Your task to perform on an android device: check android version Image 0: 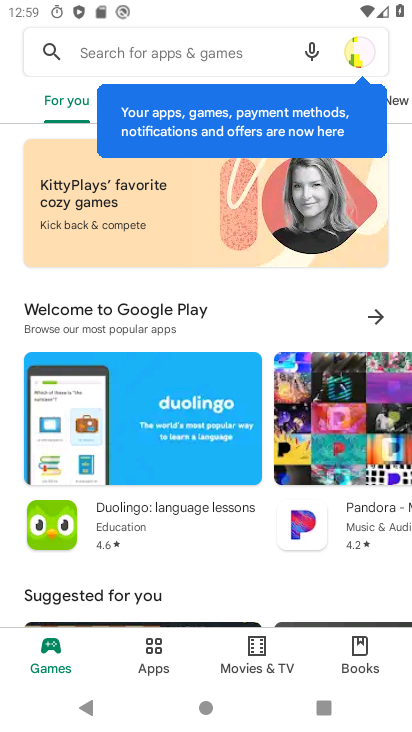
Step 0: press home button
Your task to perform on an android device: check android version Image 1: 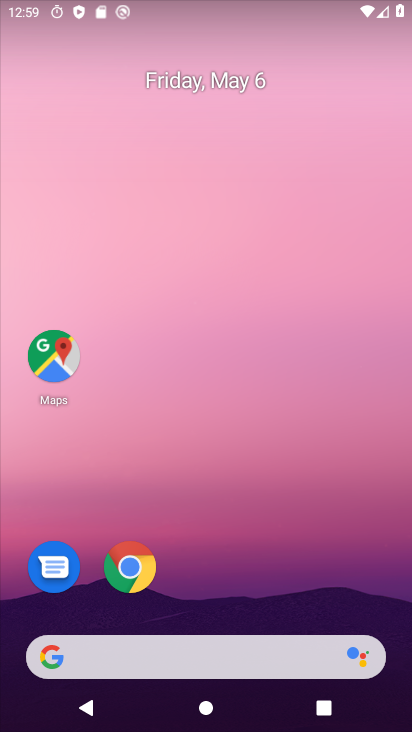
Step 1: drag from (248, 691) to (314, 212)
Your task to perform on an android device: check android version Image 2: 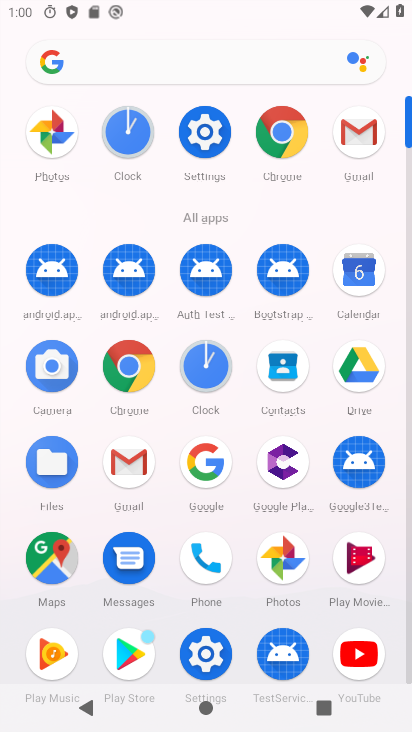
Step 2: click (205, 148)
Your task to perform on an android device: check android version Image 3: 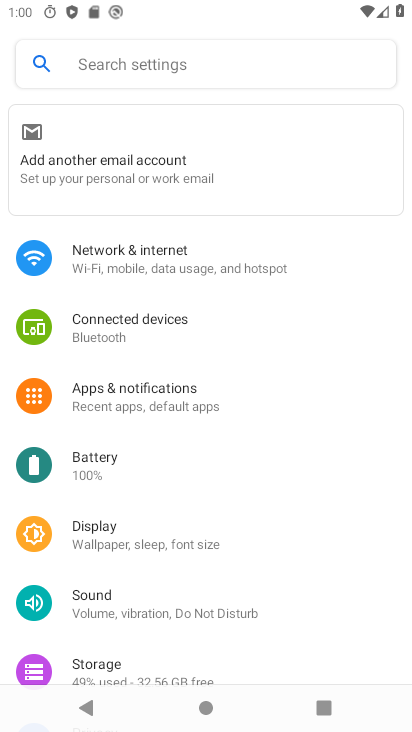
Step 3: click (174, 67)
Your task to perform on an android device: check android version Image 4: 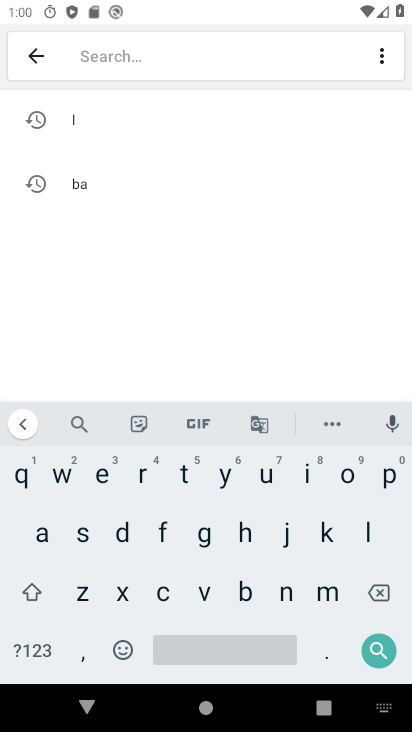
Step 4: click (42, 535)
Your task to perform on an android device: check android version Image 5: 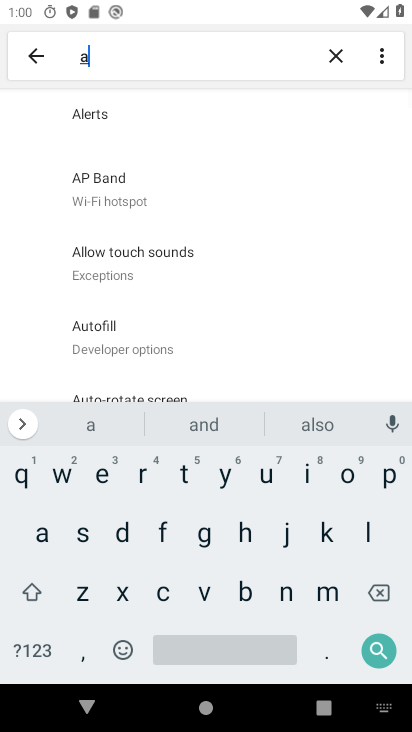
Step 5: click (292, 585)
Your task to perform on an android device: check android version Image 6: 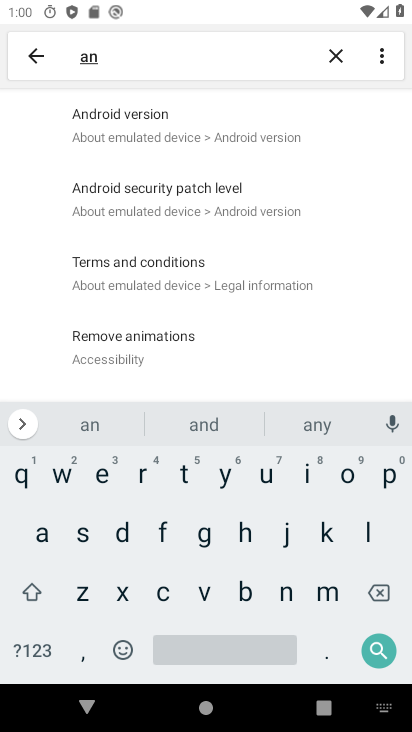
Step 6: click (191, 126)
Your task to perform on an android device: check android version Image 7: 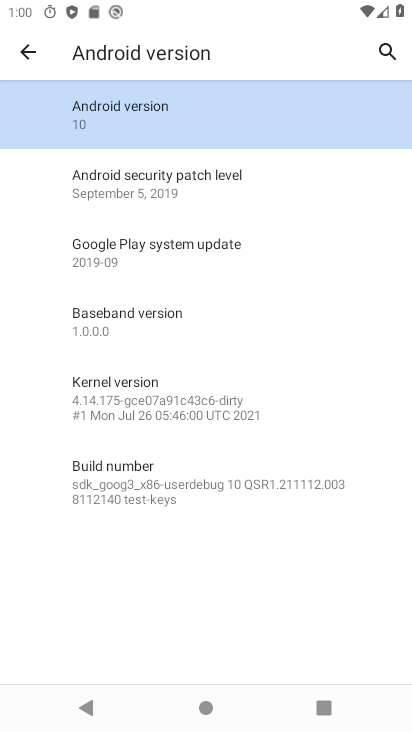
Step 7: click (191, 120)
Your task to perform on an android device: check android version Image 8: 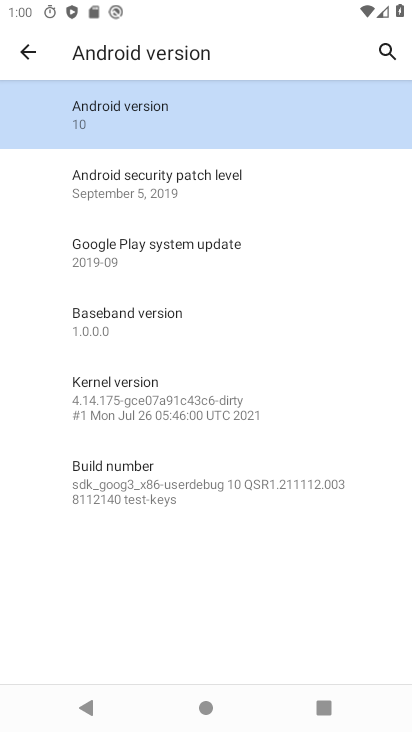
Step 8: task complete